Your task to perform on an android device: toggle airplane mode Image 0: 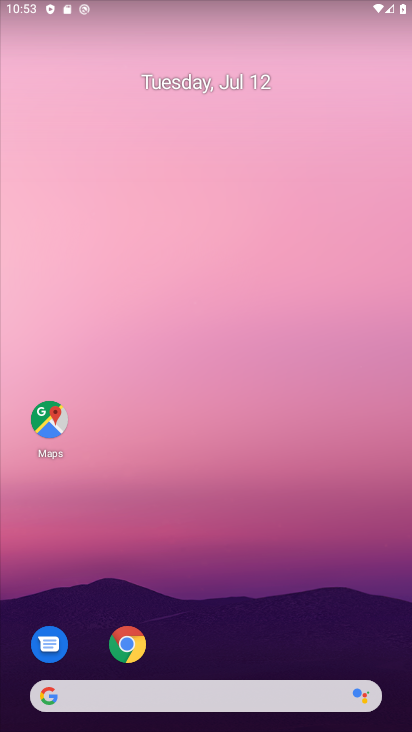
Step 0: drag from (224, 671) to (257, 161)
Your task to perform on an android device: toggle airplane mode Image 1: 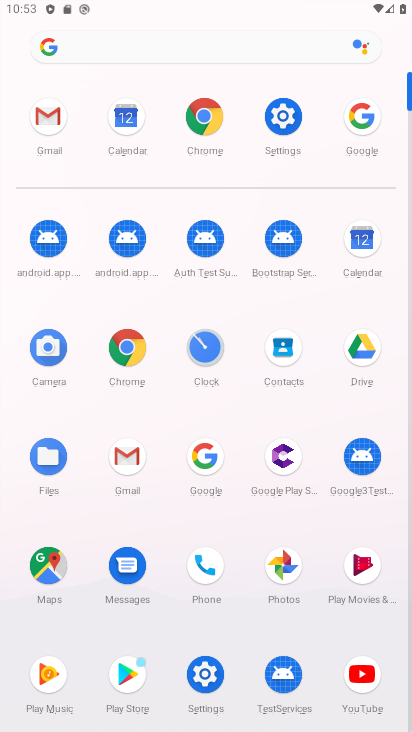
Step 1: click (276, 121)
Your task to perform on an android device: toggle airplane mode Image 2: 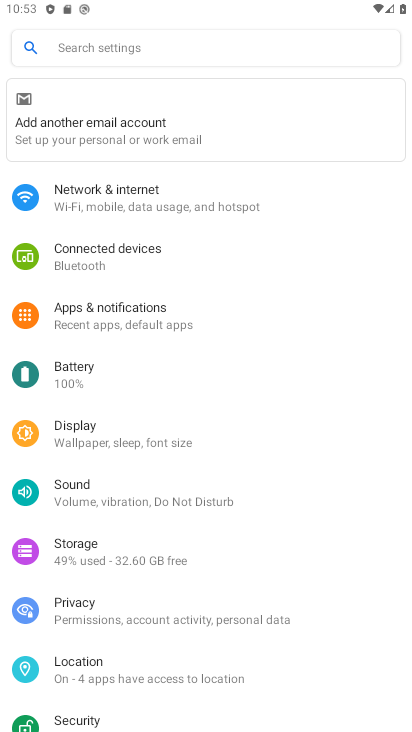
Step 2: click (107, 205)
Your task to perform on an android device: toggle airplane mode Image 3: 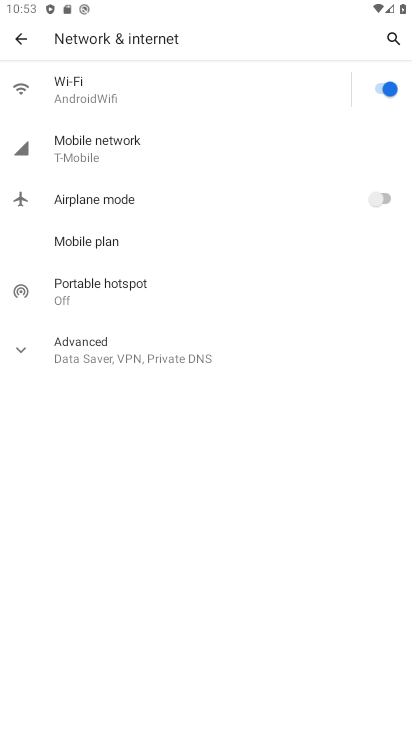
Step 3: click (382, 197)
Your task to perform on an android device: toggle airplane mode Image 4: 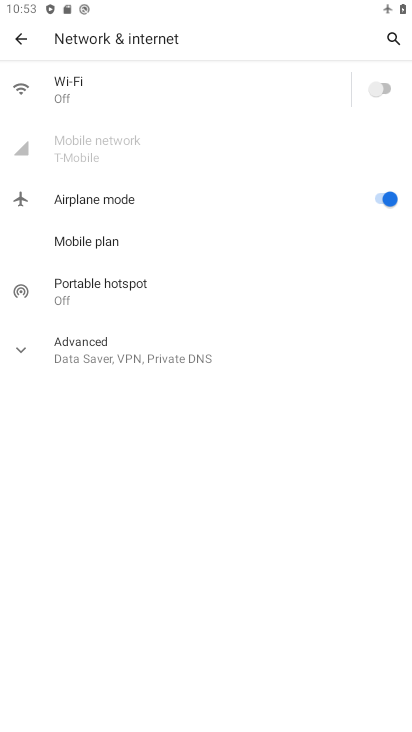
Step 4: task complete